Your task to perform on an android device: Open the Play Movies app and select the watchlist tab. Image 0: 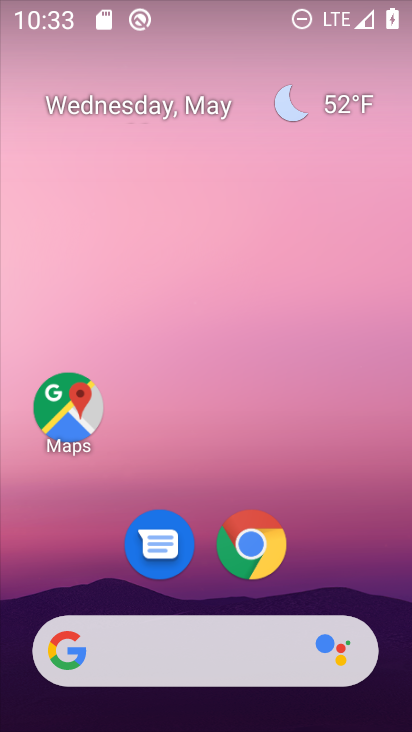
Step 0: drag from (217, 577) to (158, 93)
Your task to perform on an android device: Open the Play Movies app and select the watchlist tab. Image 1: 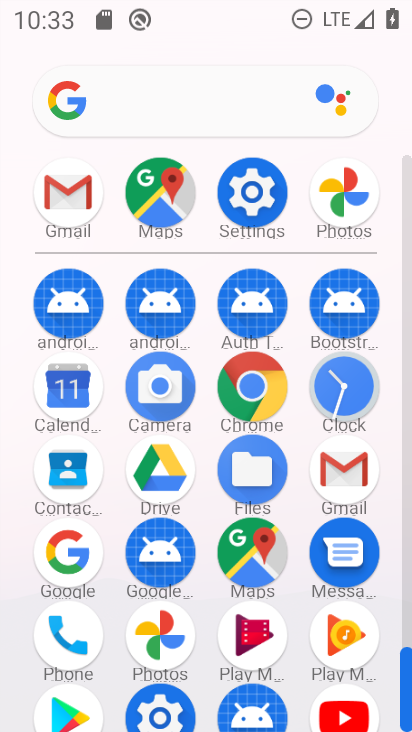
Step 1: click (244, 652)
Your task to perform on an android device: Open the Play Movies app and select the watchlist tab. Image 2: 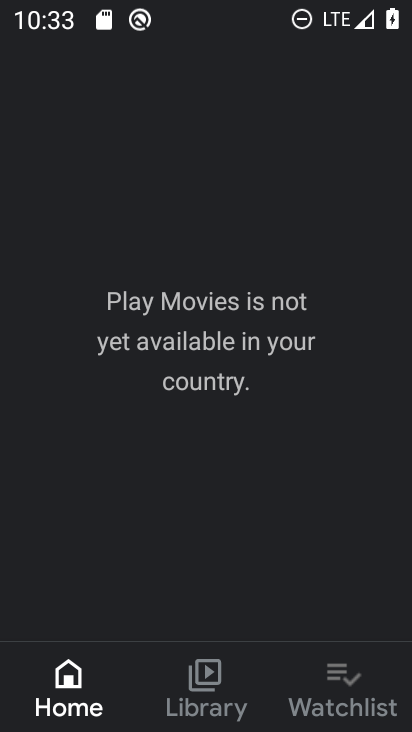
Step 2: click (288, 682)
Your task to perform on an android device: Open the Play Movies app and select the watchlist tab. Image 3: 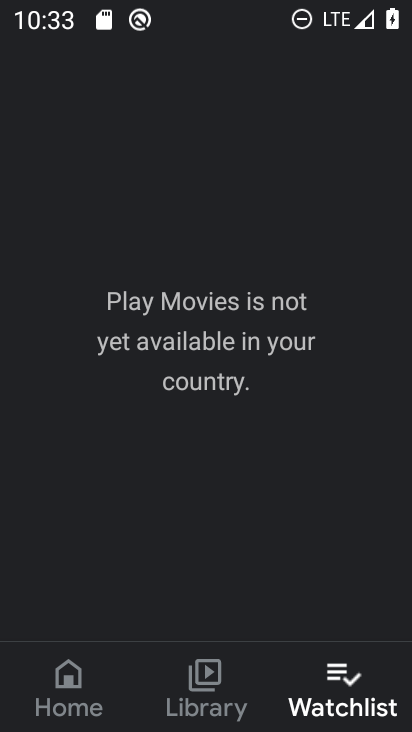
Step 3: task complete